Your task to perform on an android device: Open the web browser Image 0: 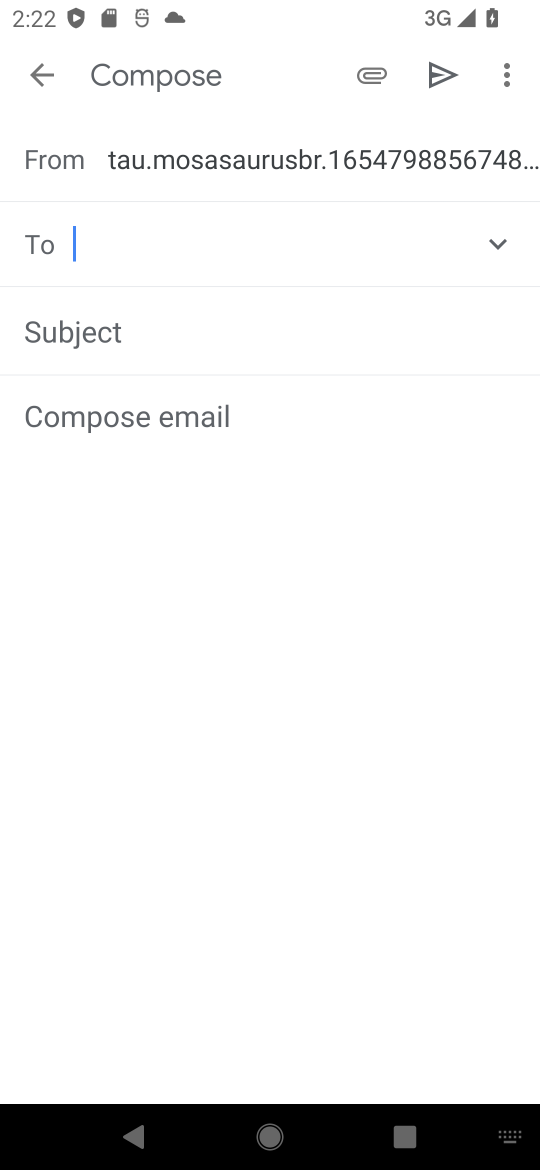
Step 0: press home button
Your task to perform on an android device: Open the web browser Image 1: 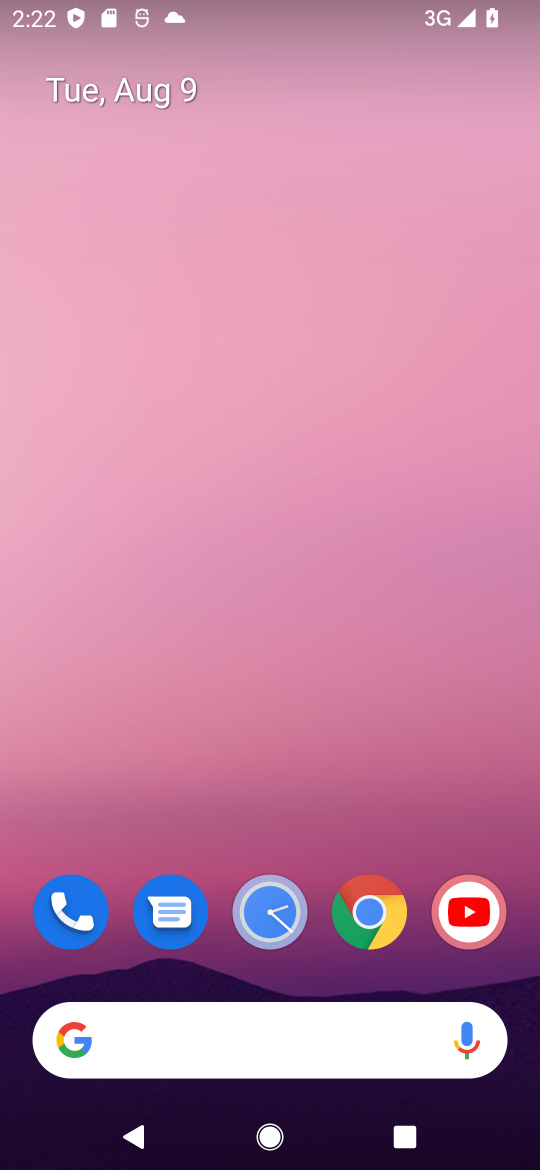
Step 1: click (369, 914)
Your task to perform on an android device: Open the web browser Image 2: 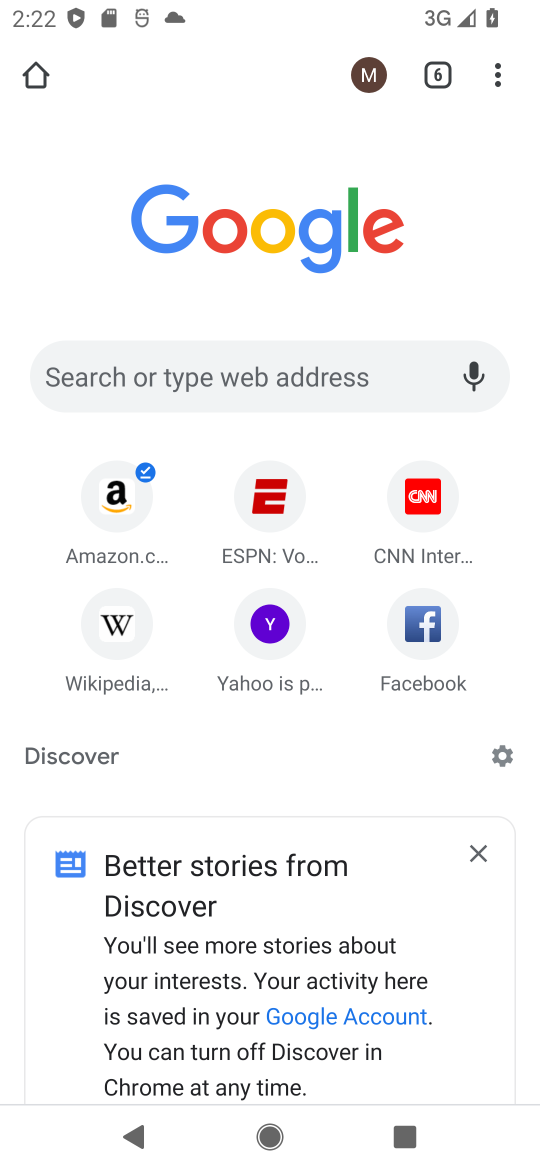
Step 2: task complete